Your task to perform on an android device: What is the recent news? Image 0: 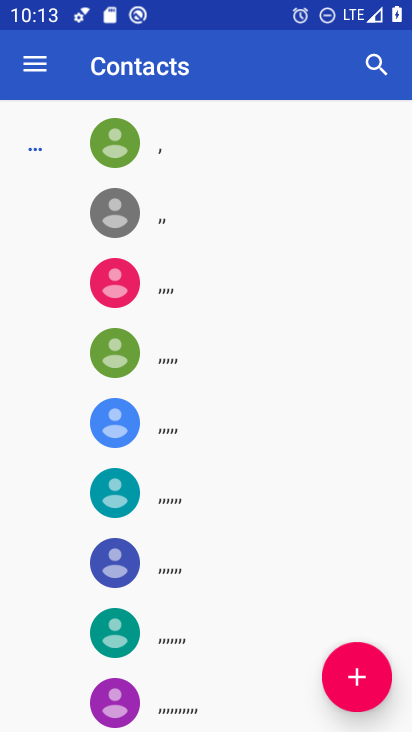
Step 0: press home button
Your task to perform on an android device: What is the recent news? Image 1: 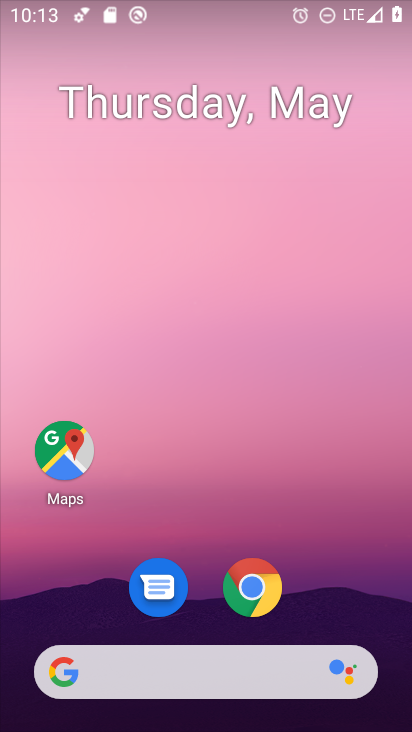
Step 1: click (140, 665)
Your task to perform on an android device: What is the recent news? Image 2: 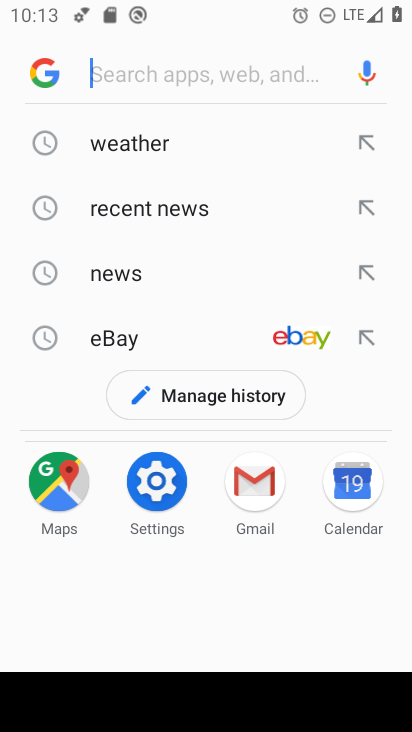
Step 2: click (140, 211)
Your task to perform on an android device: What is the recent news? Image 3: 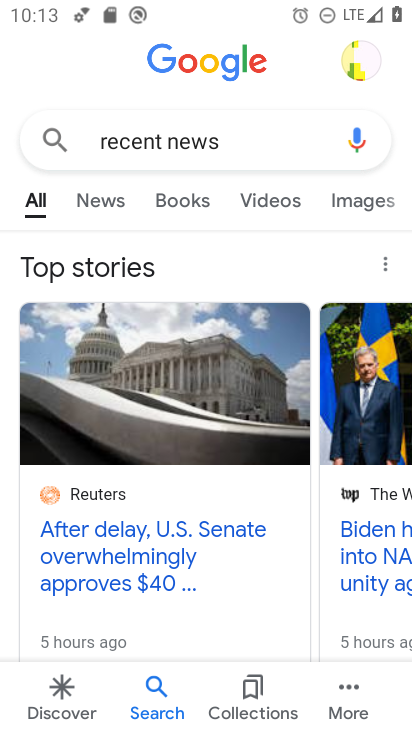
Step 3: click (112, 206)
Your task to perform on an android device: What is the recent news? Image 4: 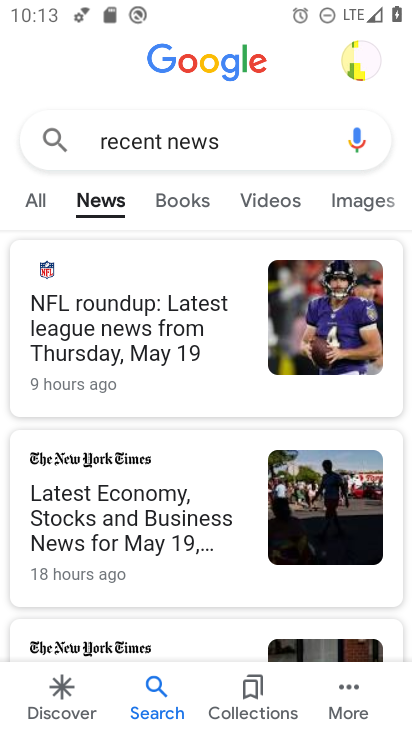
Step 4: drag from (131, 547) to (139, 155)
Your task to perform on an android device: What is the recent news? Image 5: 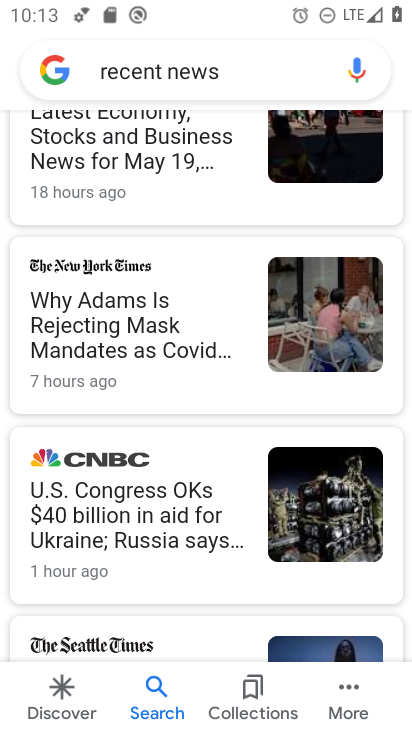
Step 5: drag from (131, 459) to (130, 168)
Your task to perform on an android device: What is the recent news? Image 6: 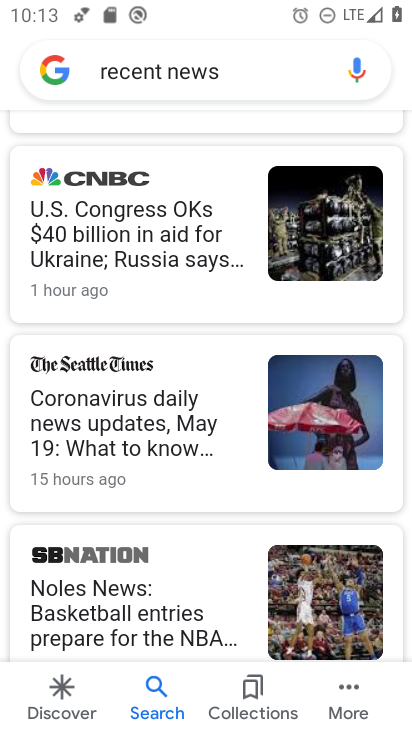
Step 6: click (119, 231)
Your task to perform on an android device: What is the recent news? Image 7: 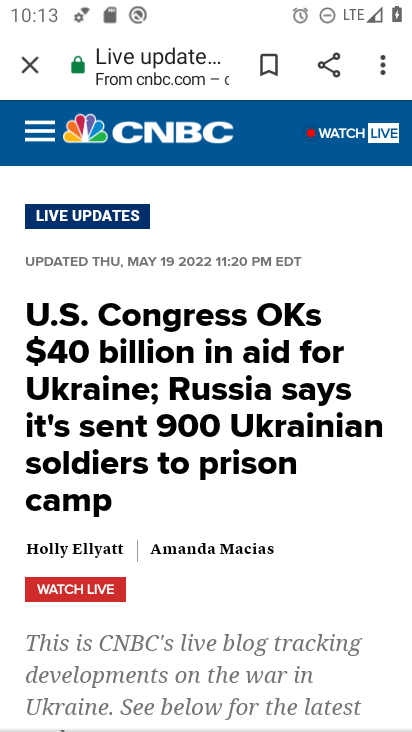
Step 7: task complete